Your task to perform on an android device: Go to CNN.com Image 0: 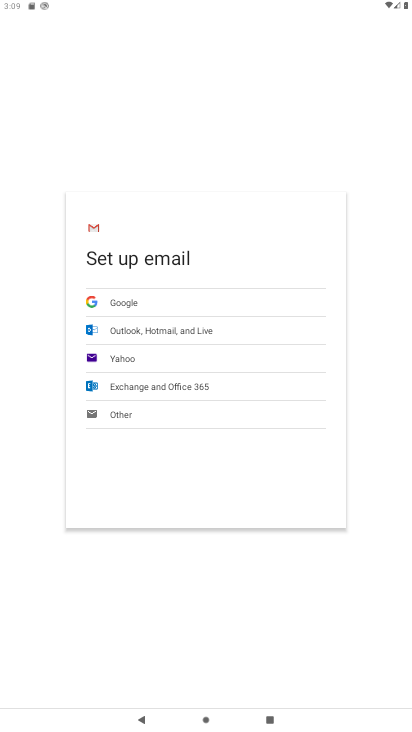
Step 0: press home button
Your task to perform on an android device: Go to CNN.com Image 1: 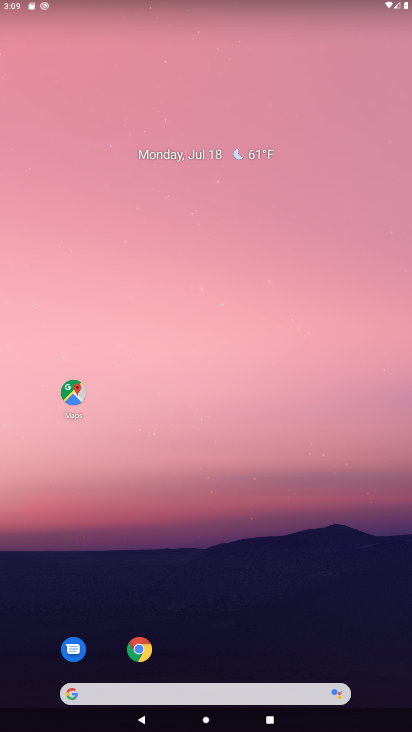
Step 1: click (139, 653)
Your task to perform on an android device: Go to CNN.com Image 2: 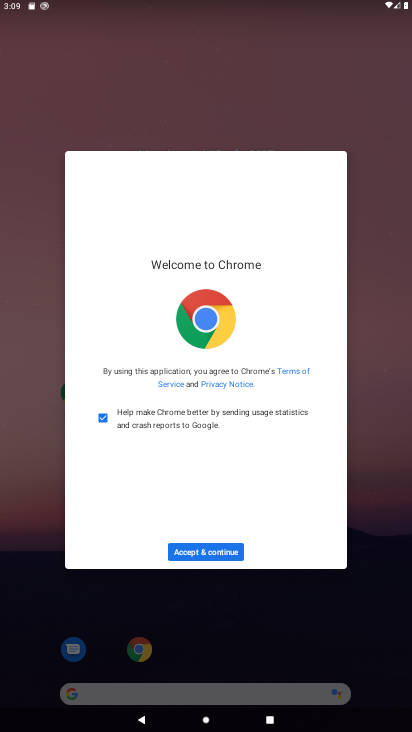
Step 2: click (213, 551)
Your task to perform on an android device: Go to CNN.com Image 3: 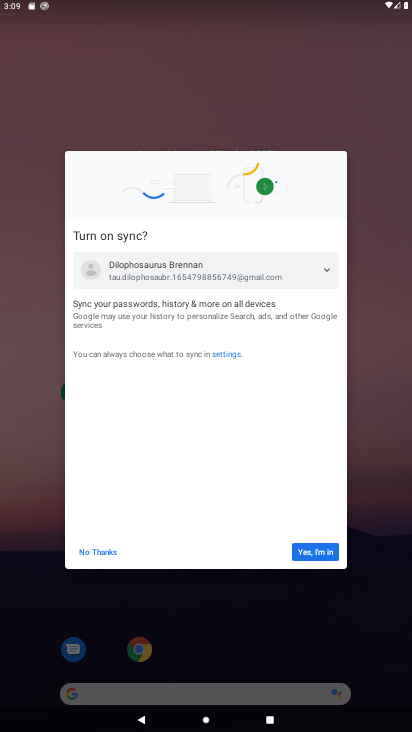
Step 3: click (309, 556)
Your task to perform on an android device: Go to CNN.com Image 4: 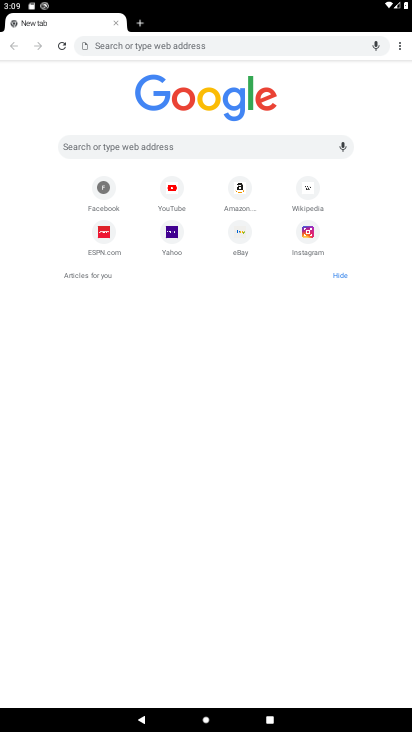
Step 4: click (254, 141)
Your task to perform on an android device: Go to CNN.com Image 5: 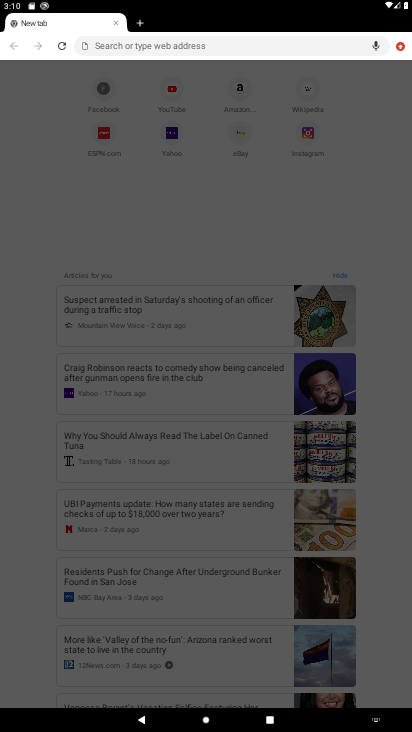
Step 5: type "CNN.com"
Your task to perform on an android device: Go to CNN.com Image 6: 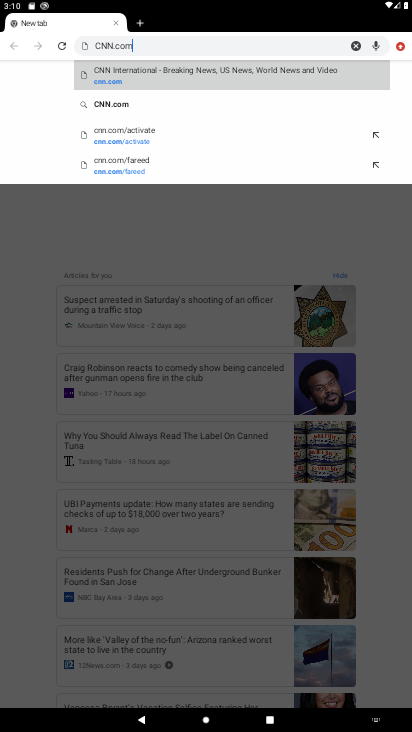
Step 6: click (183, 74)
Your task to perform on an android device: Go to CNN.com Image 7: 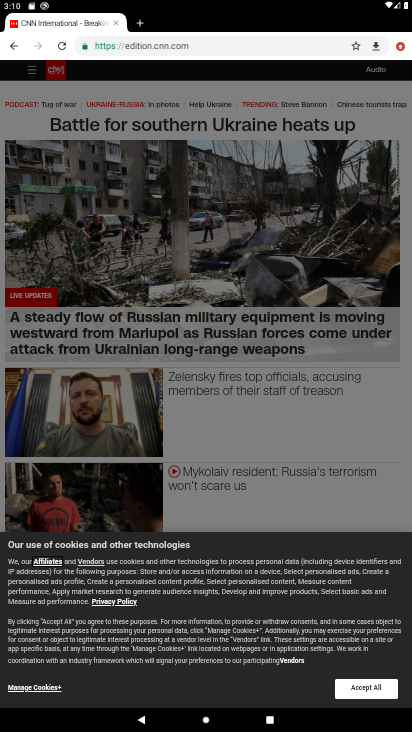
Step 7: task complete